Your task to perform on an android device: turn pop-ups on in chrome Image 0: 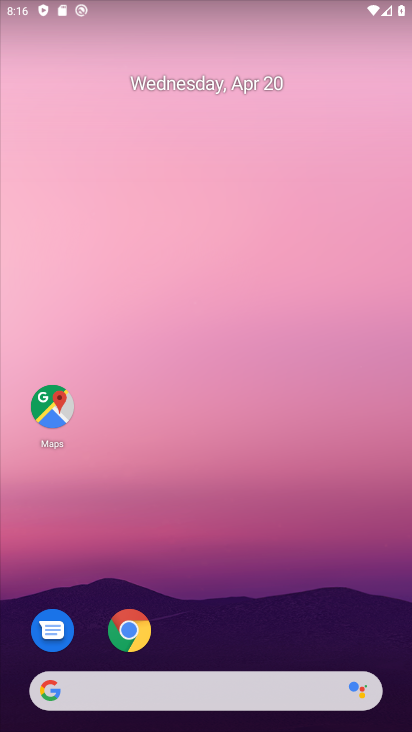
Step 0: click (141, 632)
Your task to perform on an android device: turn pop-ups on in chrome Image 1: 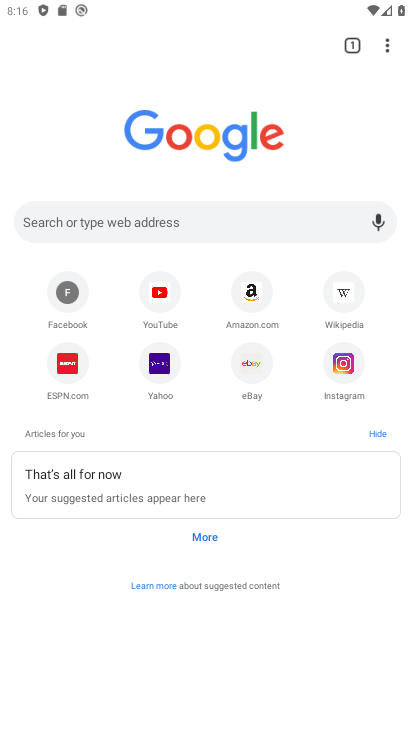
Step 1: click (388, 55)
Your task to perform on an android device: turn pop-ups on in chrome Image 2: 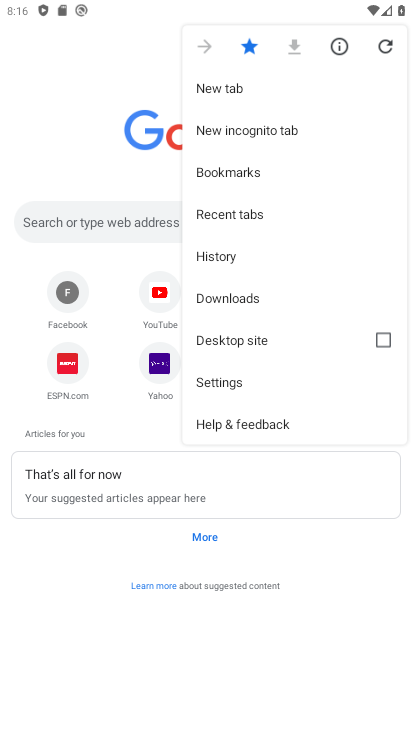
Step 2: click (211, 383)
Your task to perform on an android device: turn pop-ups on in chrome Image 3: 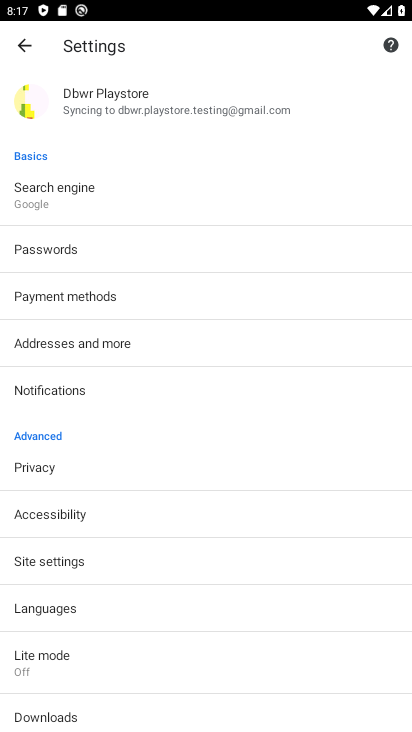
Step 3: click (59, 567)
Your task to perform on an android device: turn pop-ups on in chrome Image 4: 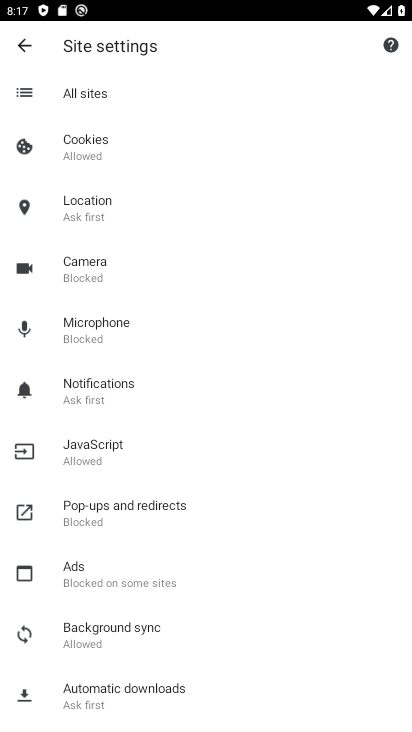
Step 4: click (95, 524)
Your task to perform on an android device: turn pop-ups on in chrome Image 5: 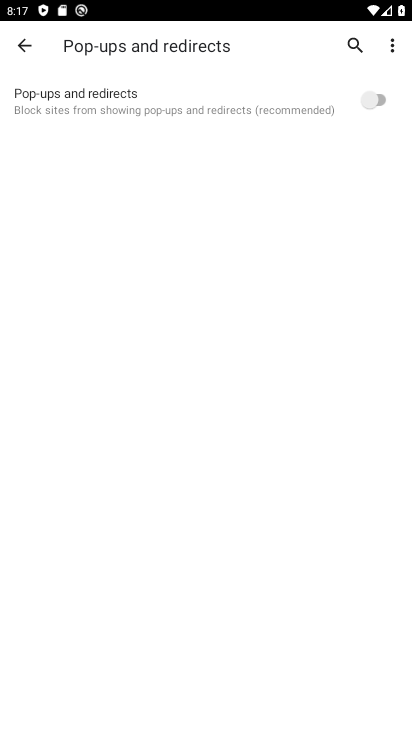
Step 5: click (380, 97)
Your task to perform on an android device: turn pop-ups on in chrome Image 6: 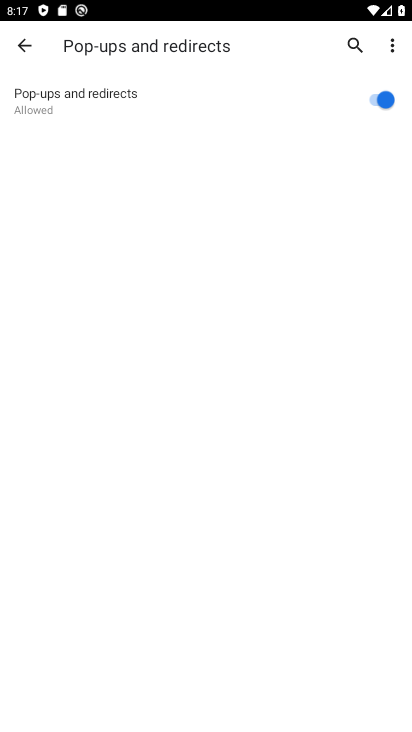
Step 6: task complete